Your task to perform on an android device: Turn off the flashlight Image 0: 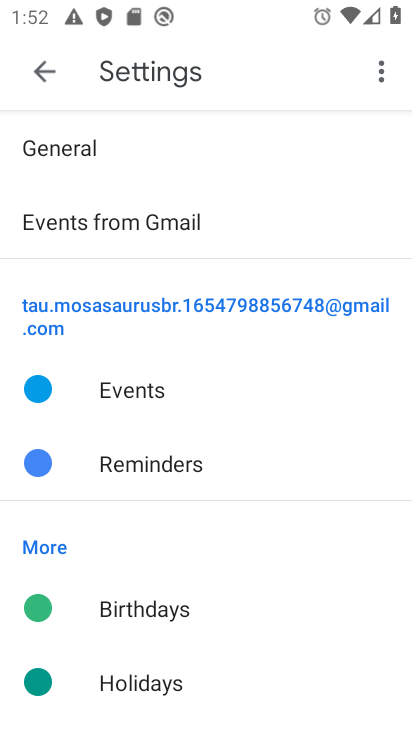
Step 0: press home button
Your task to perform on an android device: Turn off the flashlight Image 1: 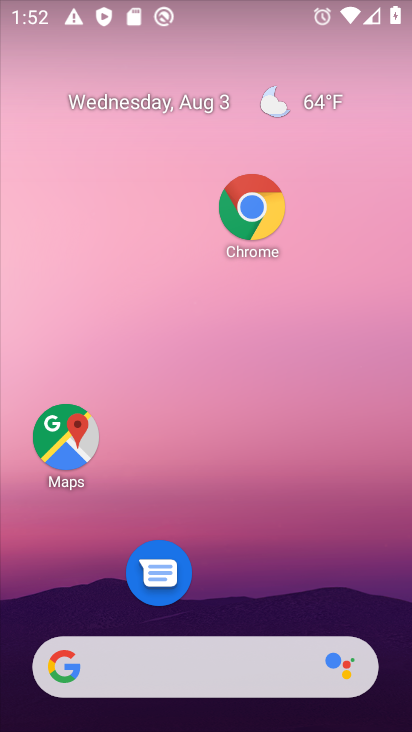
Step 1: task complete